Your task to perform on an android device: refresh tabs in the chrome app Image 0: 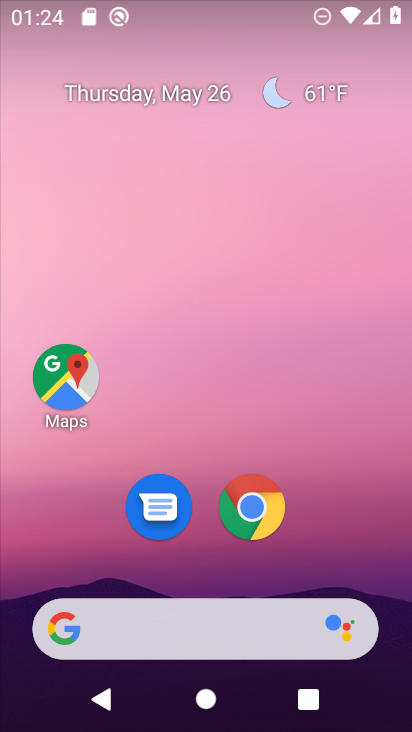
Step 0: click (265, 549)
Your task to perform on an android device: refresh tabs in the chrome app Image 1: 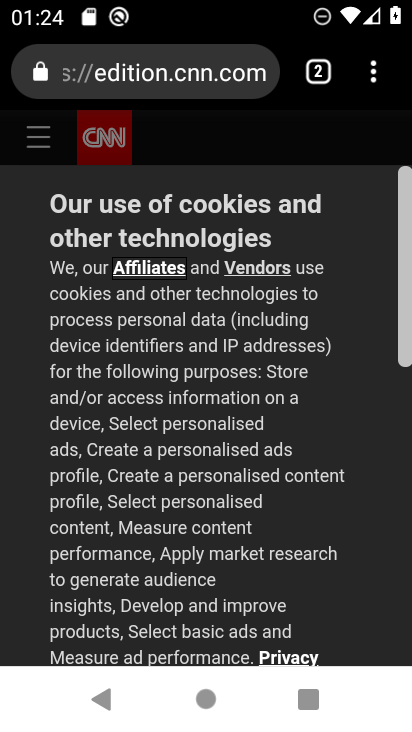
Step 1: click (370, 62)
Your task to perform on an android device: refresh tabs in the chrome app Image 2: 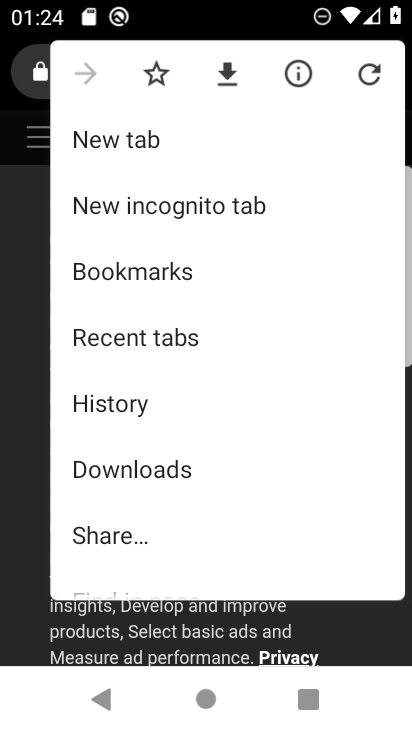
Step 2: click (353, 71)
Your task to perform on an android device: refresh tabs in the chrome app Image 3: 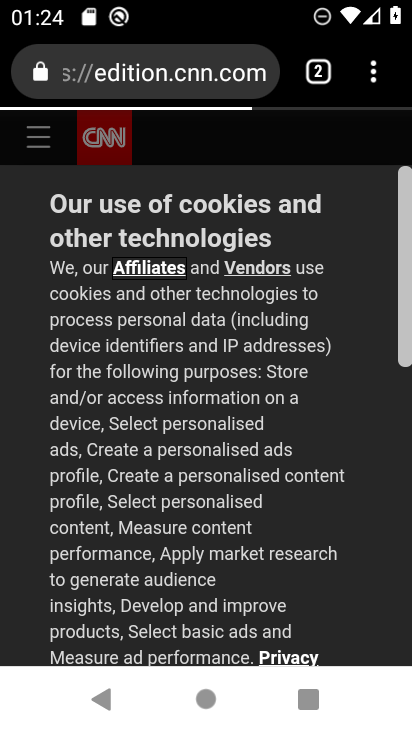
Step 3: task complete